Your task to perform on an android device: Open calendar and show me the third week of next month Image 0: 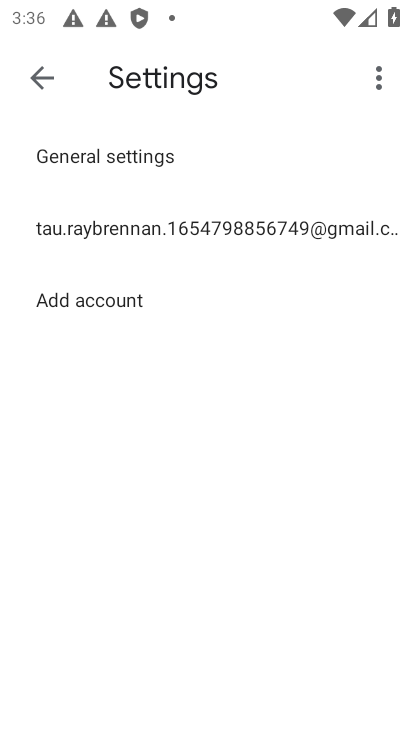
Step 0: press home button
Your task to perform on an android device: Open calendar and show me the third week of next month Image 1: 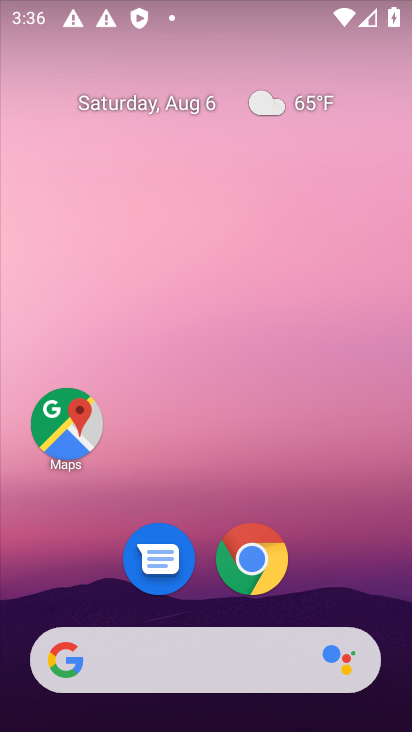
Step 1: drag from (319, 557) to (329, 30)
Your task to perform on an android device: Open calendar and show me the third week of next month Image 2: 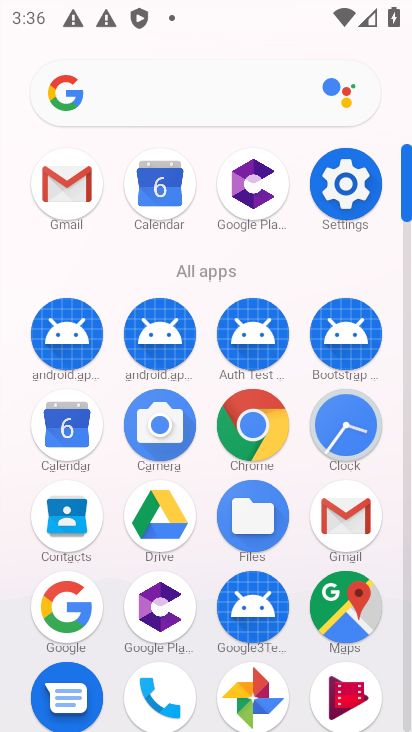
Step 2: click (72, 432)
Your task to perform on an android device: Open calendar and show me the third week of next month Image 3: 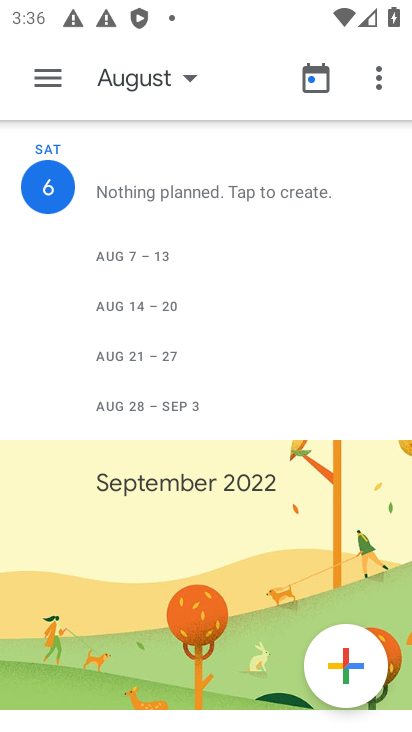
Step 3: click (46, 73)
Your task to perform on an android device: Open calendar and show me the third week of next month Image 4: 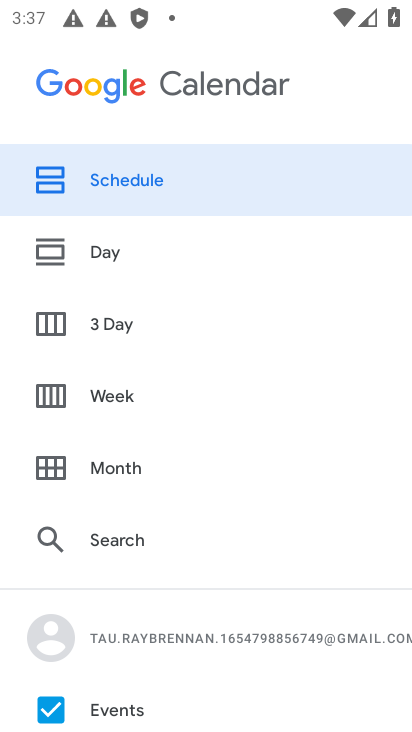
Step 4: click (55, 465)
Your task to perform on an android device: Open calendar and show me the third week of next month Image 5: 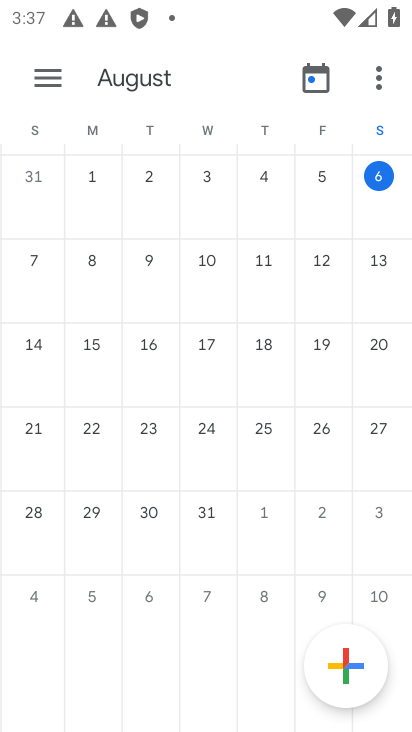
Step 5: drag from (367, 299) to (16, 271)
Your task to perform on an android device: Open calendar and show me the third week of next month Image 6: 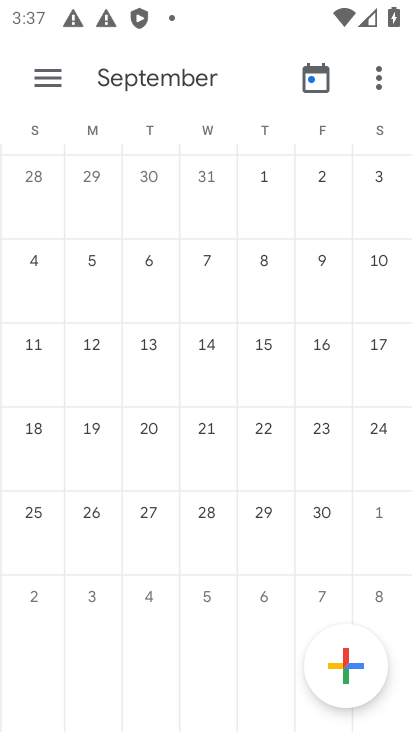
Step 6: click (35, 505)
Your task to perform on an android device: Open calendar and show me the third week of next month Image 7: 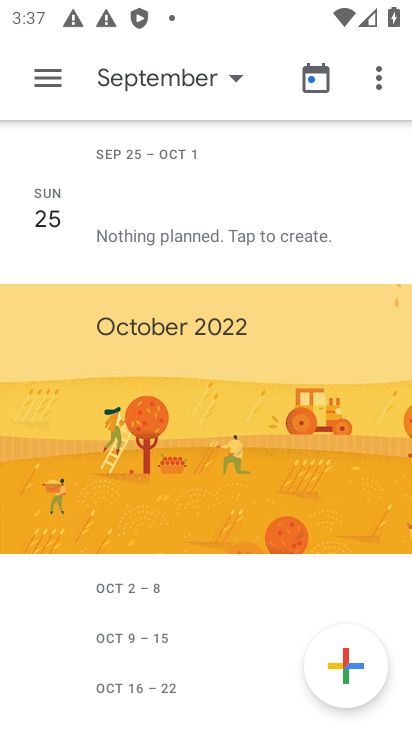
Step 7: click (47, 76)
Your task to perform on an android device: Open calendar and show me the third week of next month Image 8: 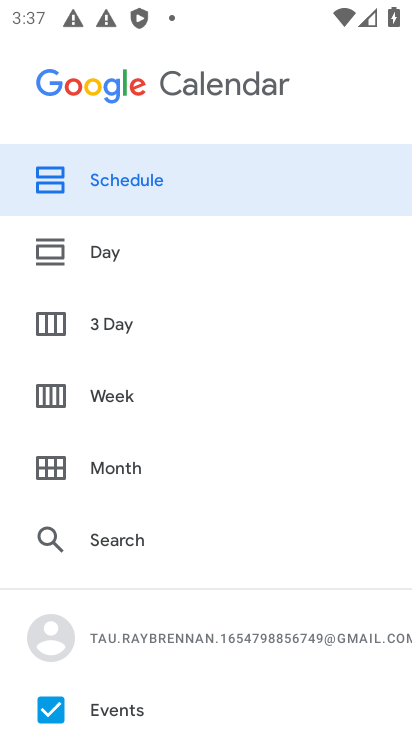
Step 8: click (49, 397)
Your task to perform on an android device: Open calendar and show me the third week of next month Image 9: 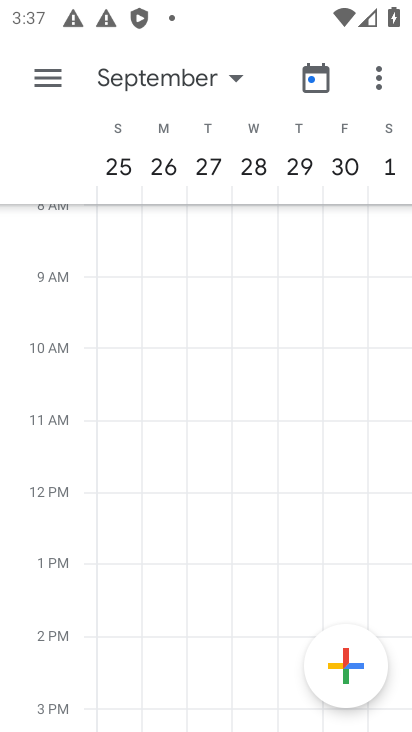
Step 9: task complete